Your task to perform on an android device: see tabs open on other devices in the chrome app Image 0: 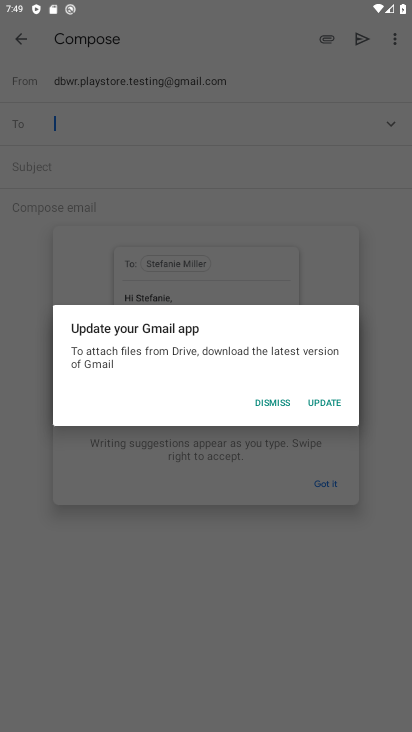
Step 0: press home button
Your task to perform on an android device: see tabs open on other devices in the chrome app Image 1: 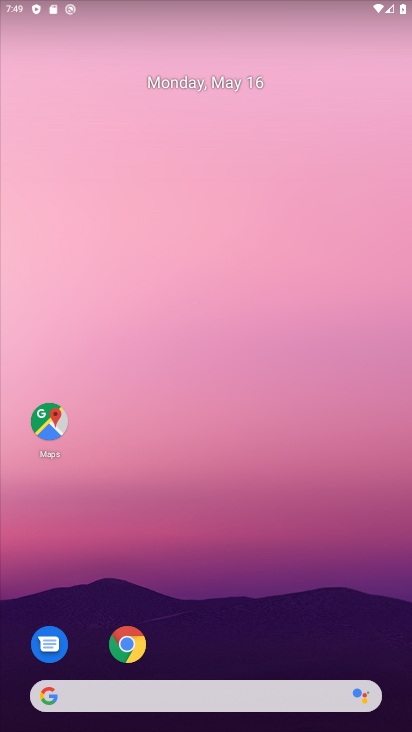
Step 1: click (136, 654)
Your task to perform on an android device: see tabs open on other devices in the chrome app Image 2: 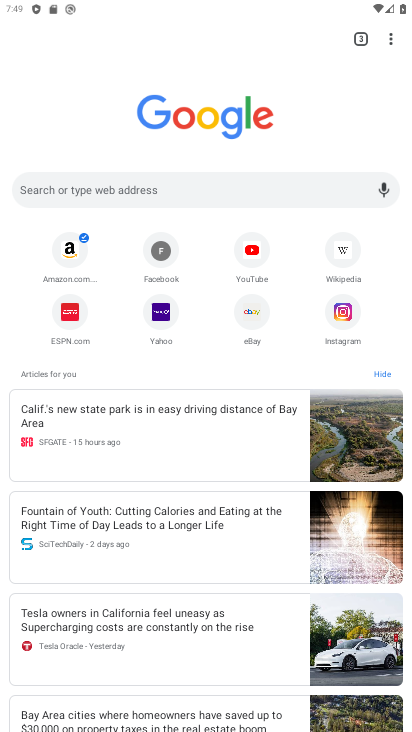
Step 2: click (389, 44)
Your task to perform on an android device: see tabs open on other devices in the chrome app Image 3: 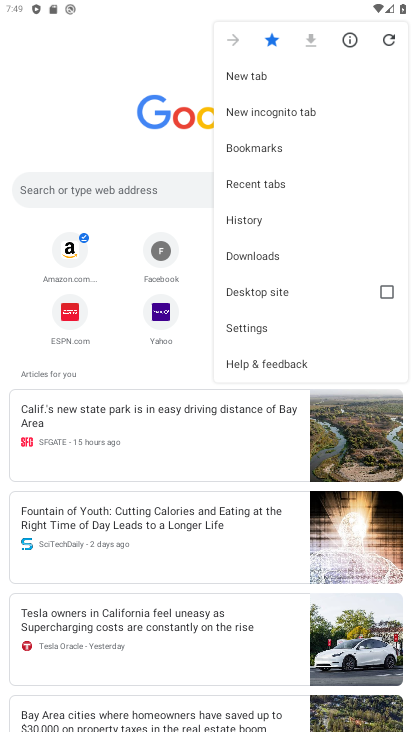
Step 3: click (283, 183)
Your task to perform on an android device: see tabs open on other devices in the chrome app Image 4: 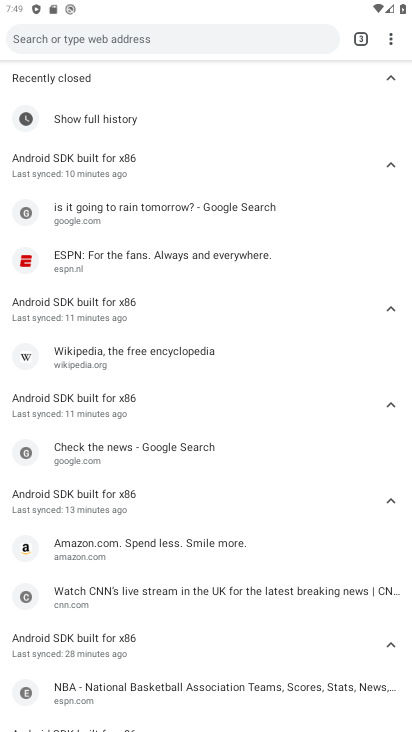
Step 4: task complete